Your task to perform on an android device: check storage Image 0: 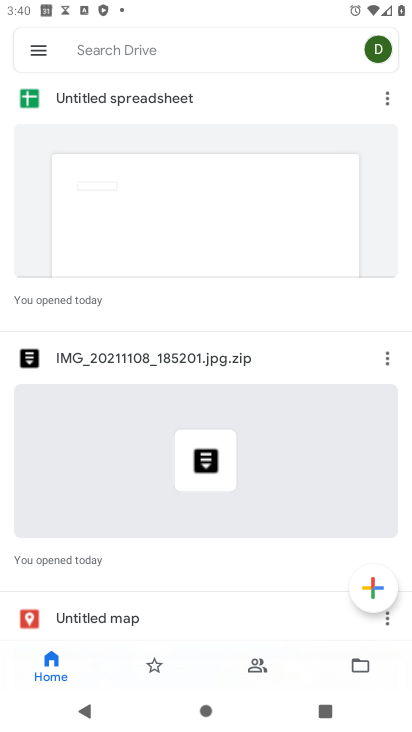
Step 0: press home button
Your task to perform on an android device: check storage Image 1: 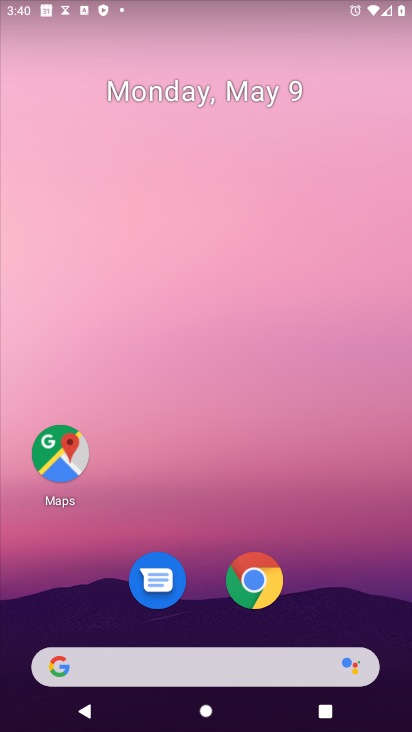
Step 1: drag from (310, 506) to (260, 137)
Your task to perform on an android device: check storage Image 2: 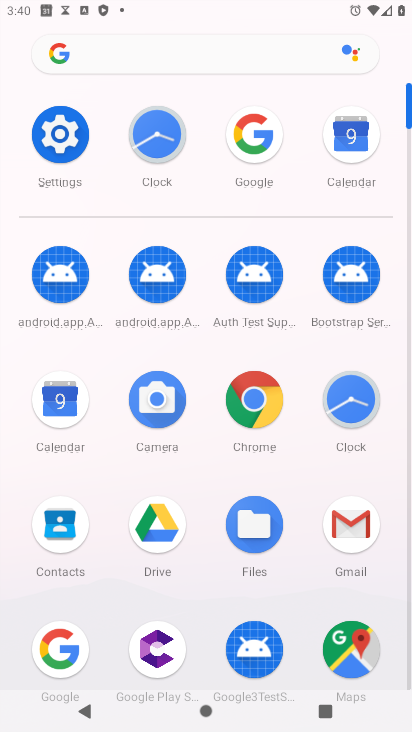
Step 2: click (70, 139)
Your task to perform on an android device: check storage Image 3: 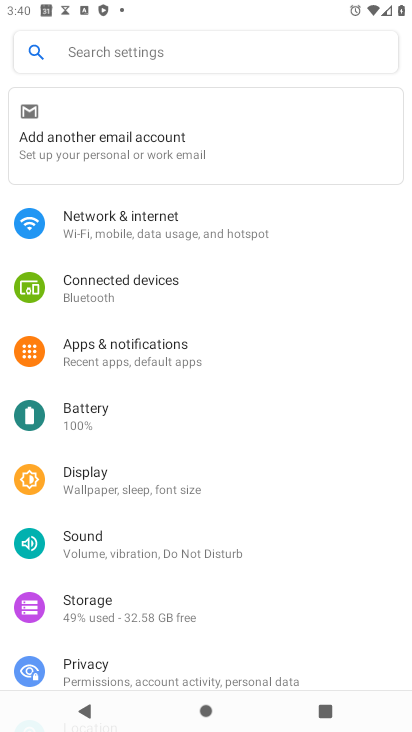
Step 3: click (164, 589)
Your task to perform on an android device: check storage Image 4: 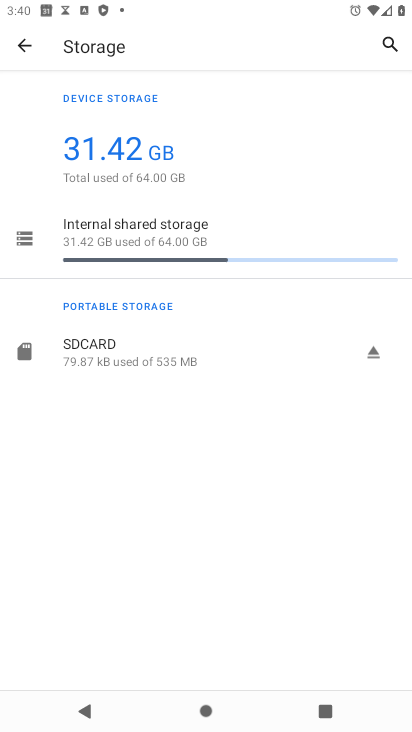
Step 4: task complete